Your task to perform on an android device: Open Youtube and go to "Your channel" Image 0: 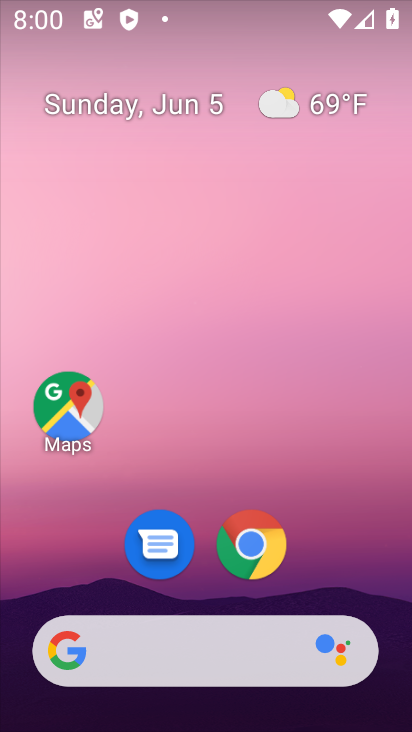
Step 0: drag from (346, 586) to (377, 216)
Your task to perform on an android device: Open Youtube and go to "Your channel" Image 1: 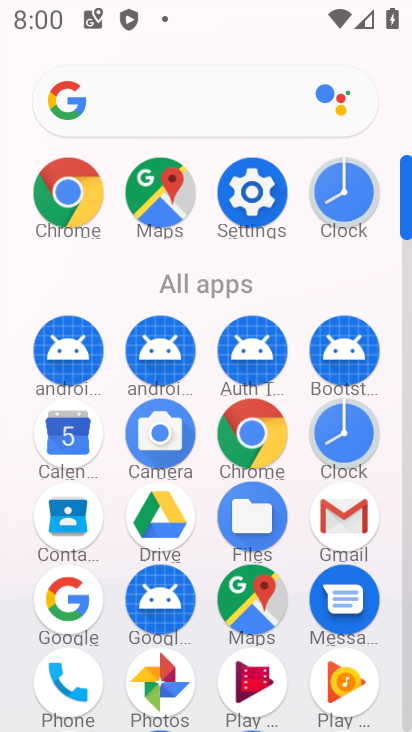
Step 1: drag from (386, 565) to (383, 382)
Your task to perform on an android device: Open Youtube and go to "Your channel" Image 2: 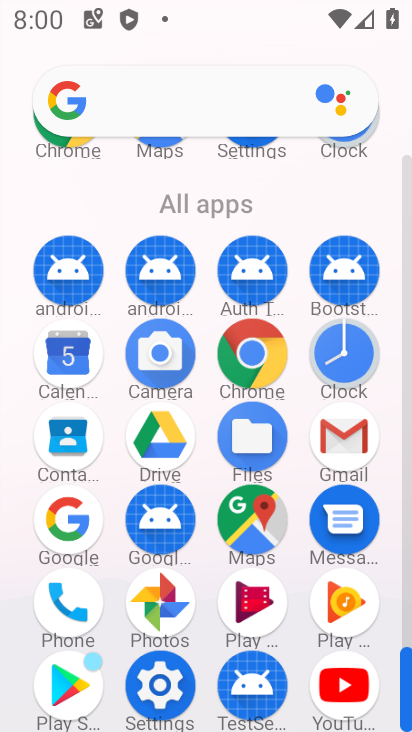
Step 2: click (339, 691)
Your task to perform on an android device: Open Youtube and go to "Your channel" Image 3: 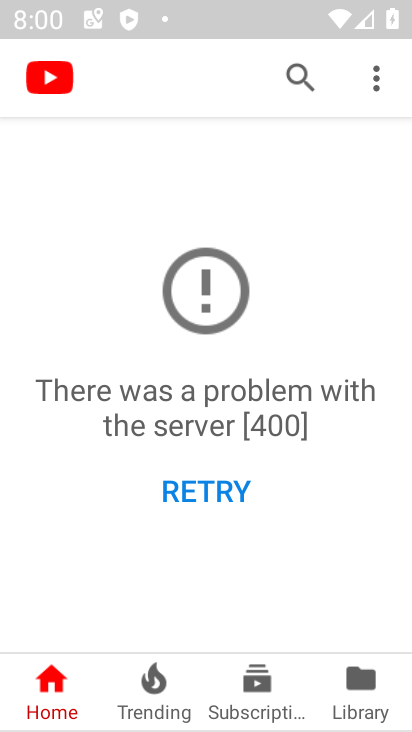
Step 3: click (377, 86)
Your task to perform on an android device: Open Youtube and go to "Your channel" Image 4: 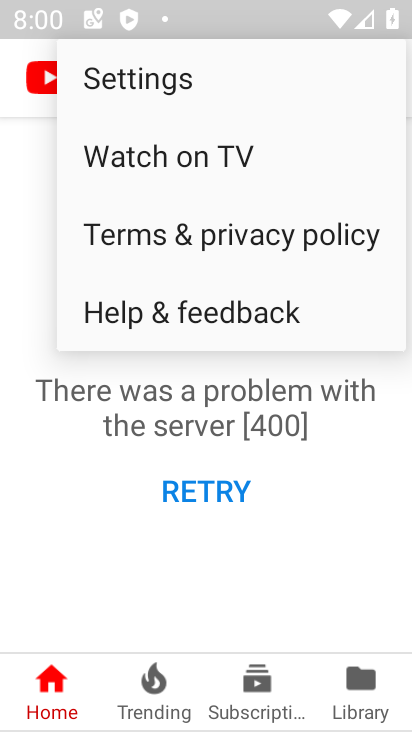
Step 4: click (179, 93)
Your task to perform on an android device: Open Youtube and go to "Your channel" Image 5: 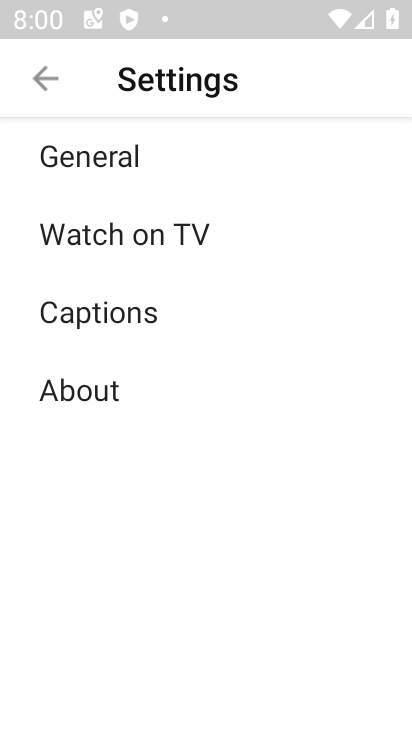
Step 5: click (36, 92)
Your task to perform on an android device: Open Youtube and go to "Your channel" Image 6: 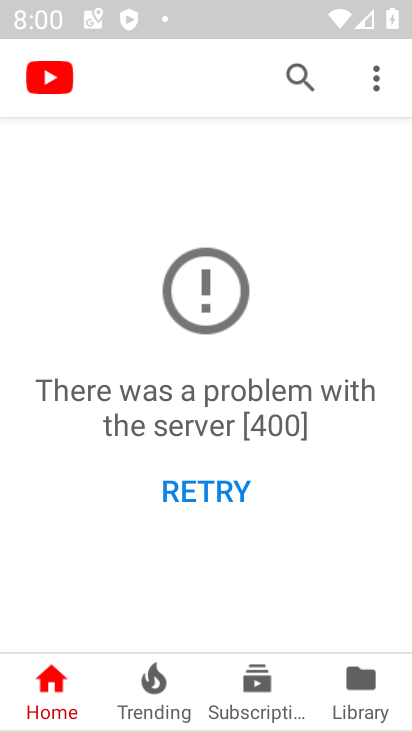
Step 6: click (347, 706)
Your task to perform on an android device: Open Youtube and go to "Your channel" Image 7: 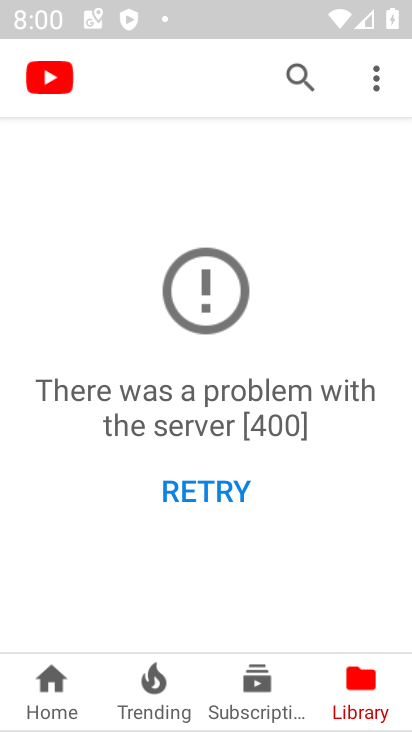
Step 7: task complete